Your task to perform on an android device: Go to Maps Image 0: 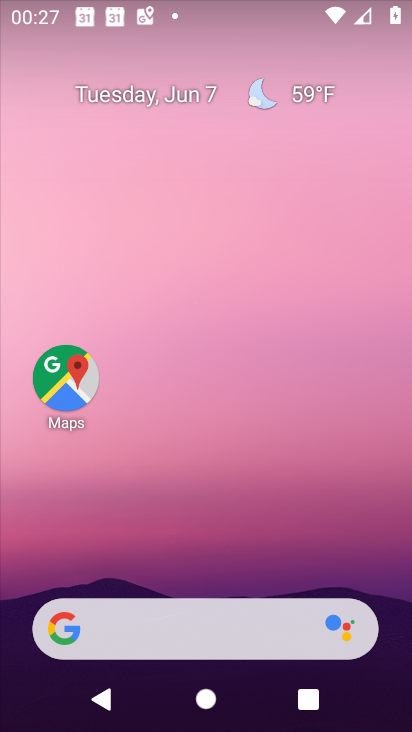
Step 0: click (72, 375)
Your task to perform on an android device: Go to Maps Image 1: 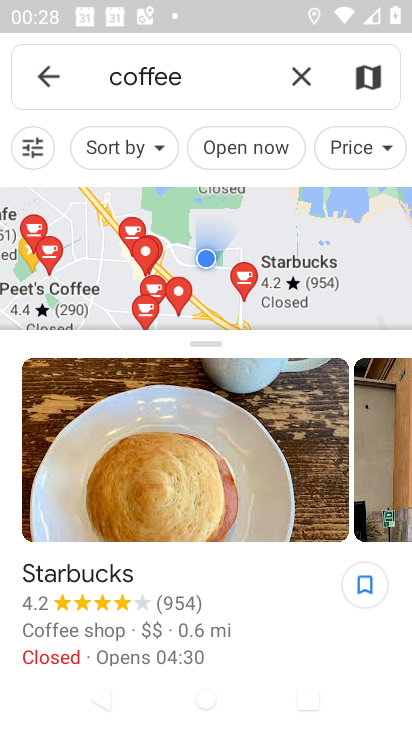
Step 1: task complete